Your task to perform on an android device: View the shopping cart on bestbuy.com. Search for logitech g pro on bestbuy.com, select the first entry, add it to the cart, then select checkout. Image 0: 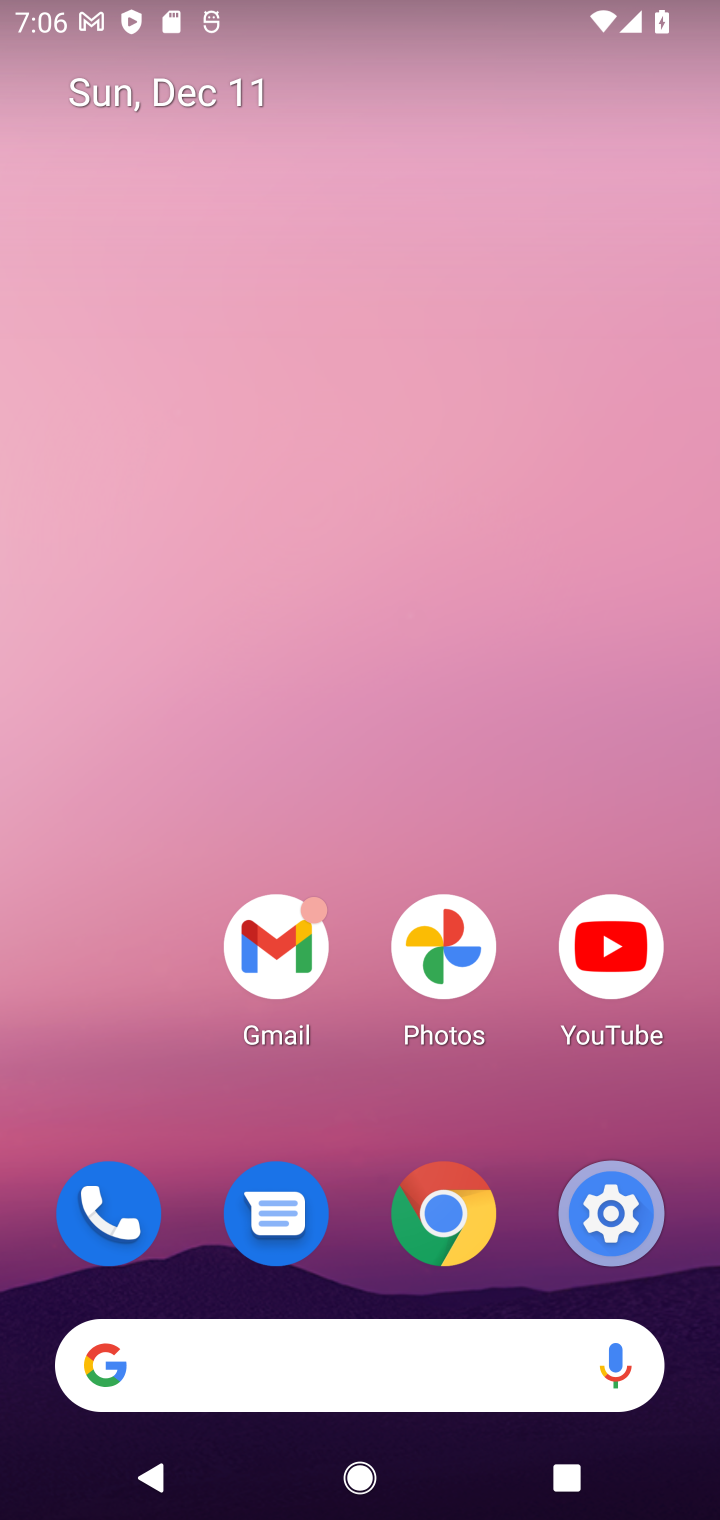
Step 0: click (362, 1363)
Your task to perform on an android device: View the shopping cart on bestbuy.com. Search for logitech g pro on bestbuy.com, select the first entry, add it to the cart, then select checkout. Image 1: 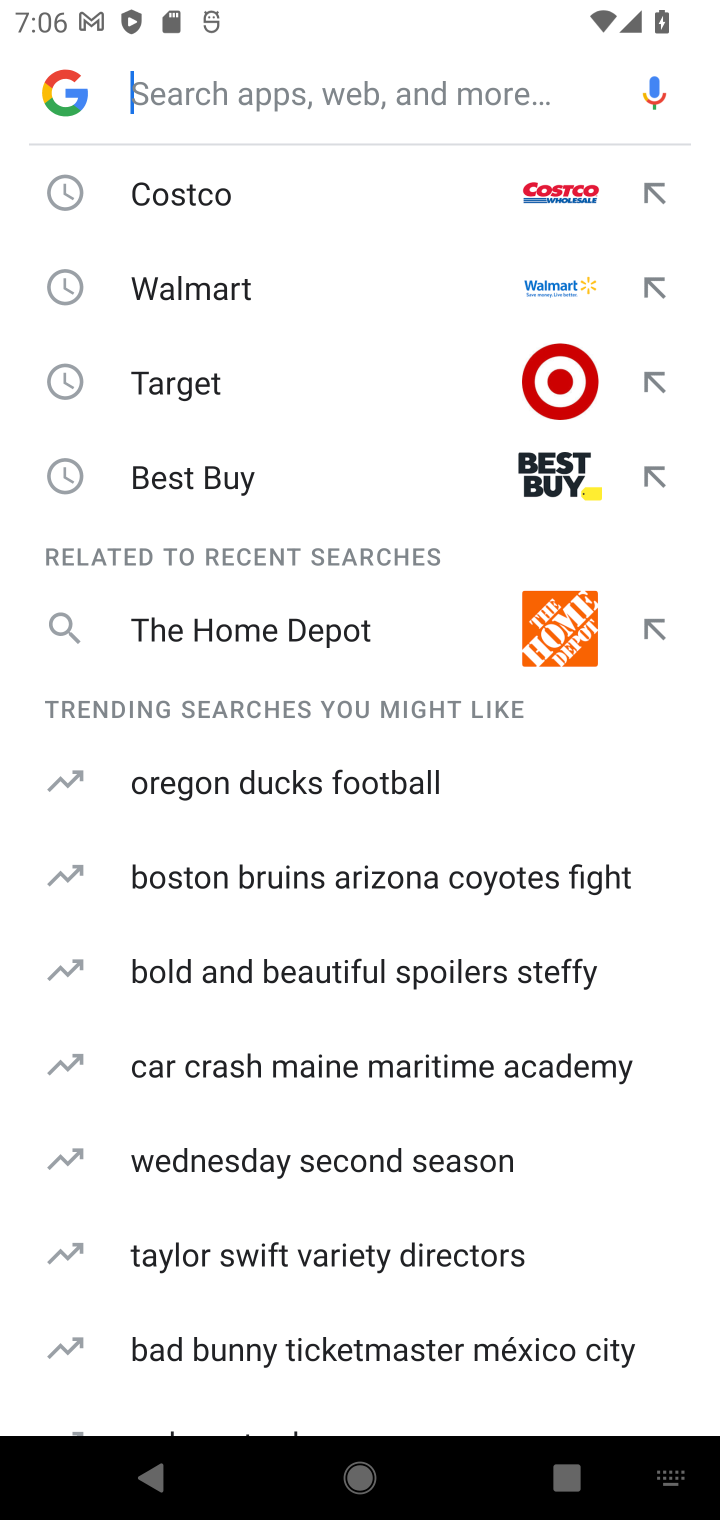
Step 1: click (260, 501)
Your task to perform on an android device: View the shopping cart on bestbuy.com. Search for logitech g pro on bestbuy.com, select the first entry, add it to the cart, then select checkout. Image 2: 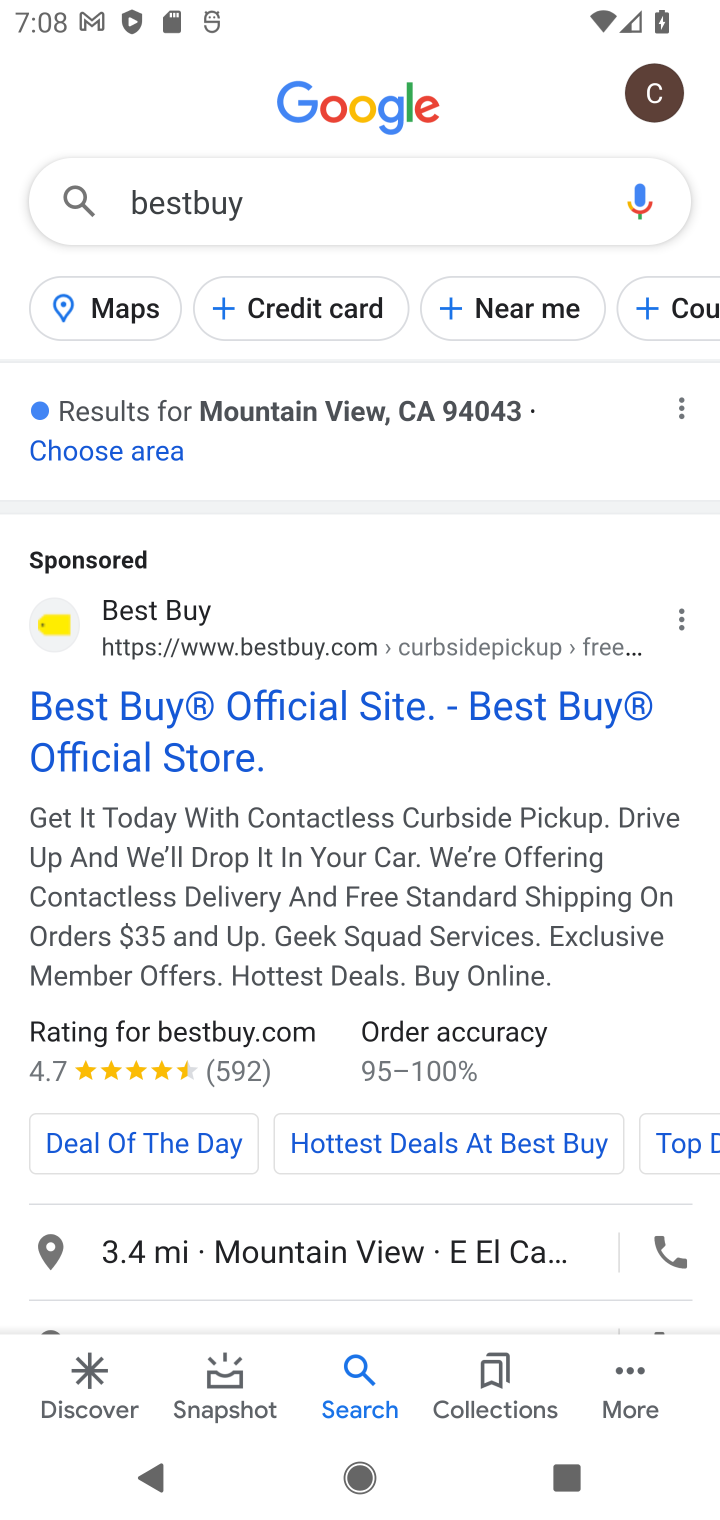
Step 2: click (286, 688)
Your task to perform on an android device: View the shopping cart on bestbuy.com. Search for logitech g pro on bestbuy.com, select the first entry, add it to the cart, then select checkout. Image 3: 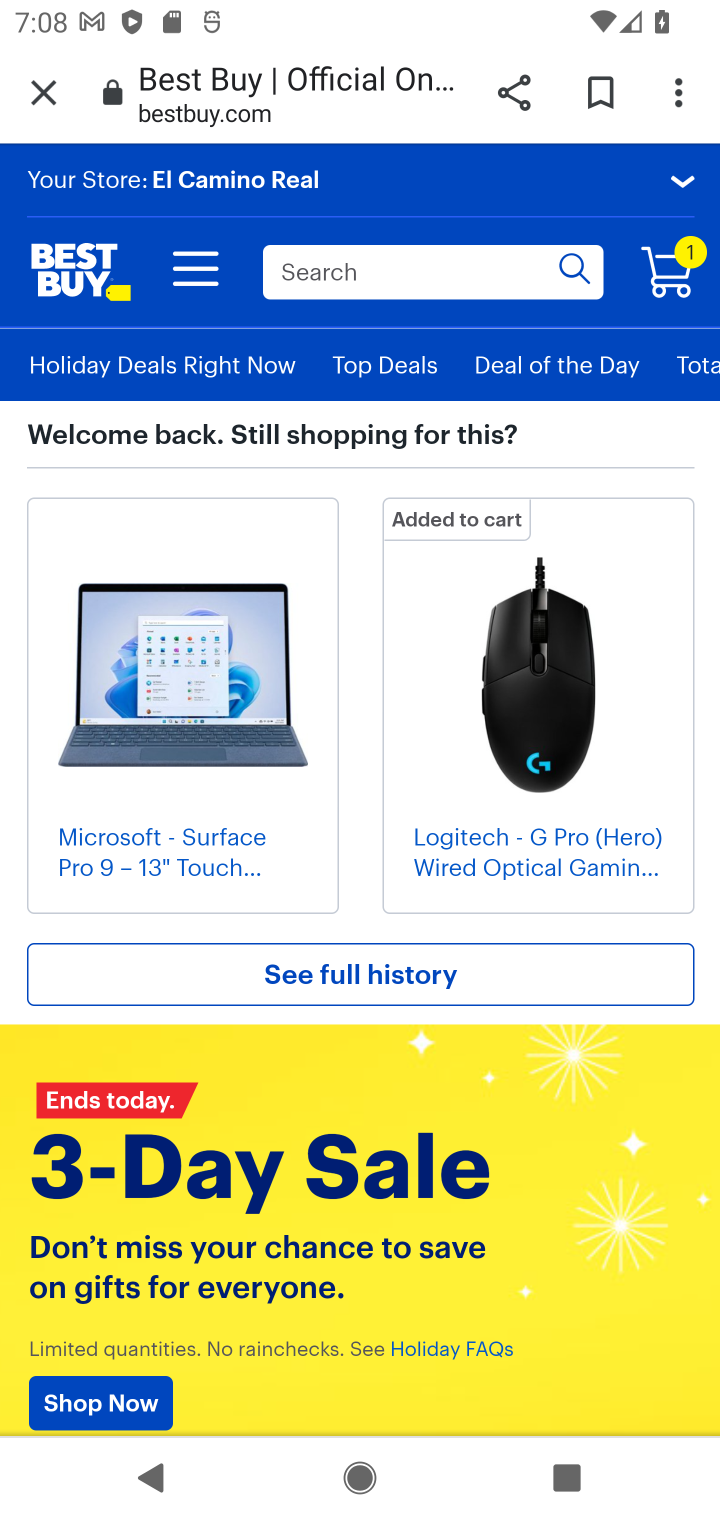
Step 3: click (446, 243)
Your task to perform on an android device: View the shopping cart on bestbuy.com. Search for logitech g pro on bestbuy.com, select the first entry, add it to the cart, then select checkout. Image 4: 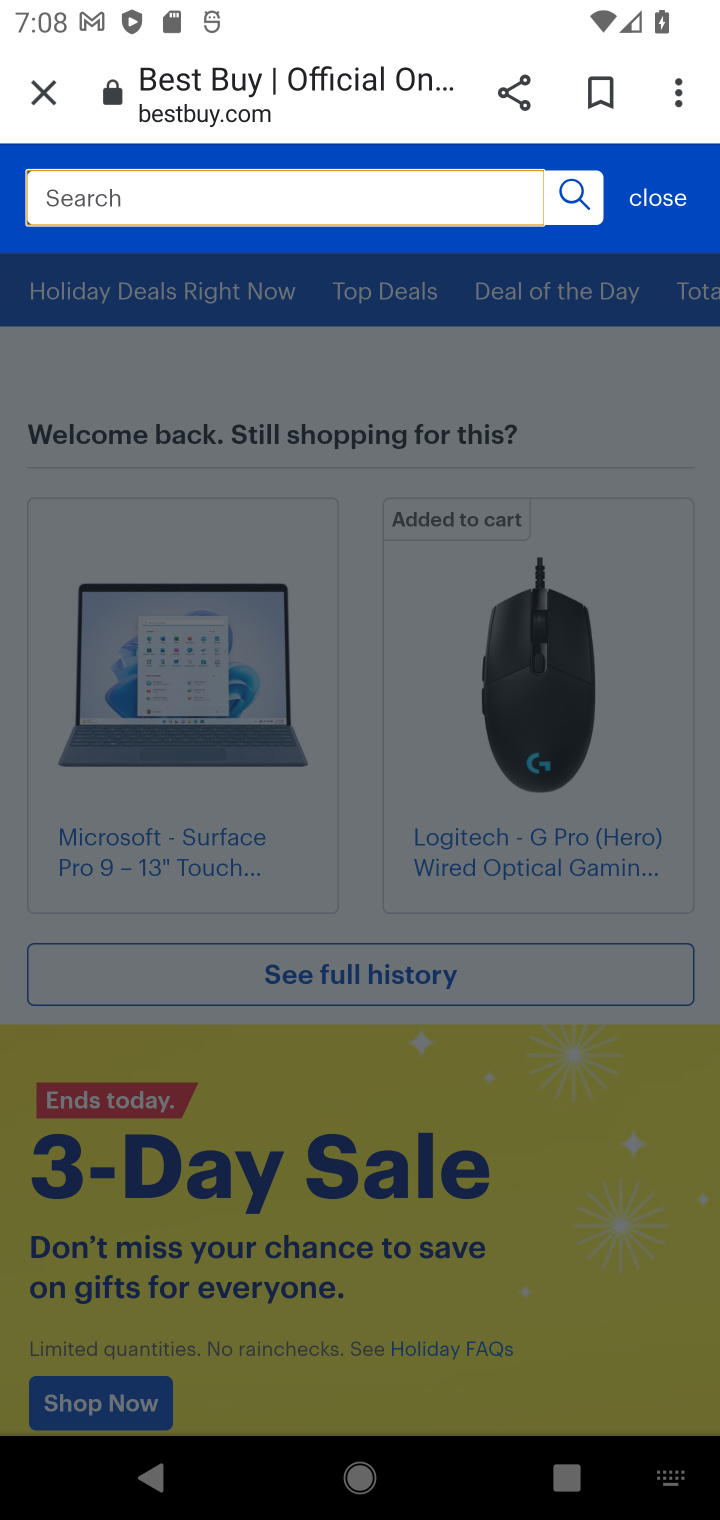
Step 4: type "logitech g pro"
Your task to perform on an android device: View the shopping cart on bestbuy.com. Search for logitech g pro on bestbuy.com, select the first entry, add it to the cart, then select checkout. Image 5: 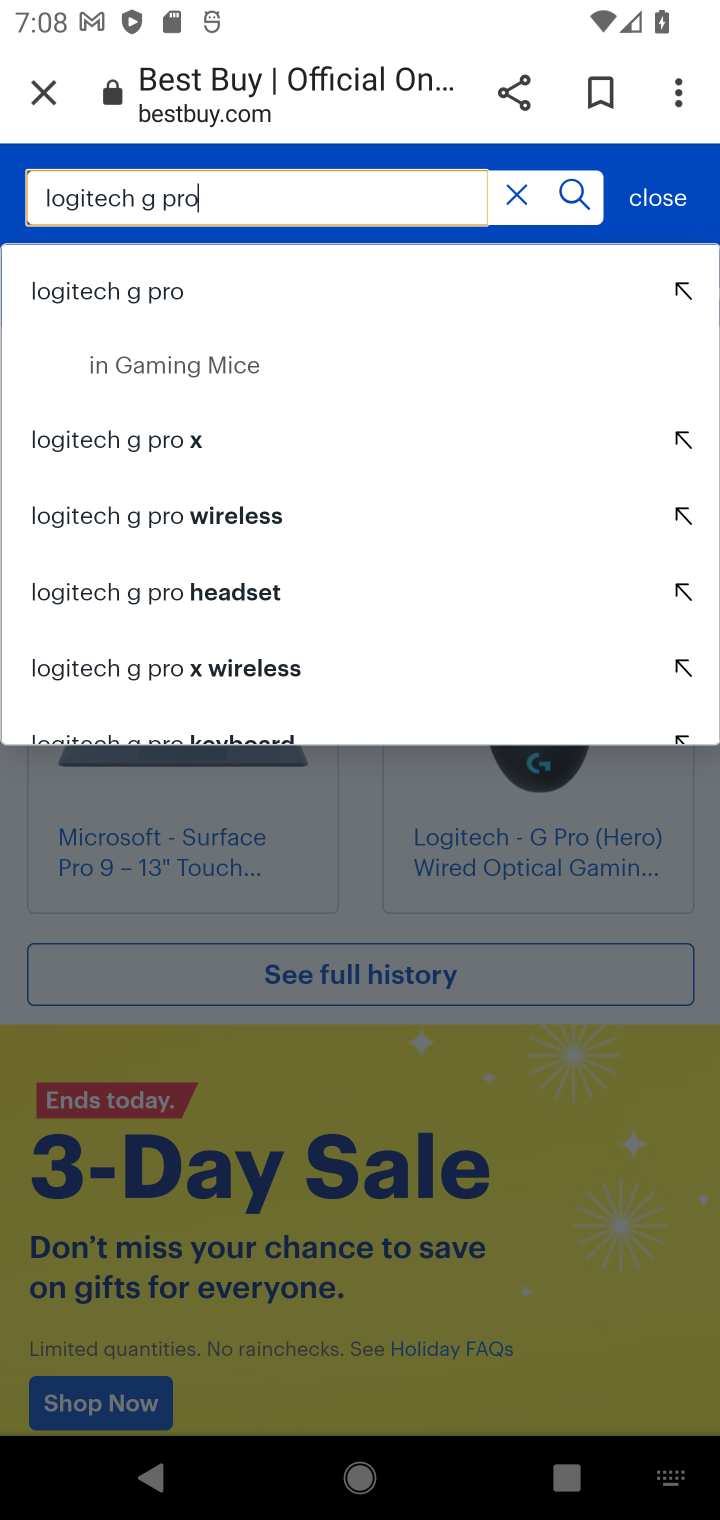
Step 5: click (195, 295)
Your task to perform on an android device: View the shopping cart on bestbuy.com. Search for logitech g pro on bestbuy.com, select the first entry, add it to the cart, then select checkout. Image 6: 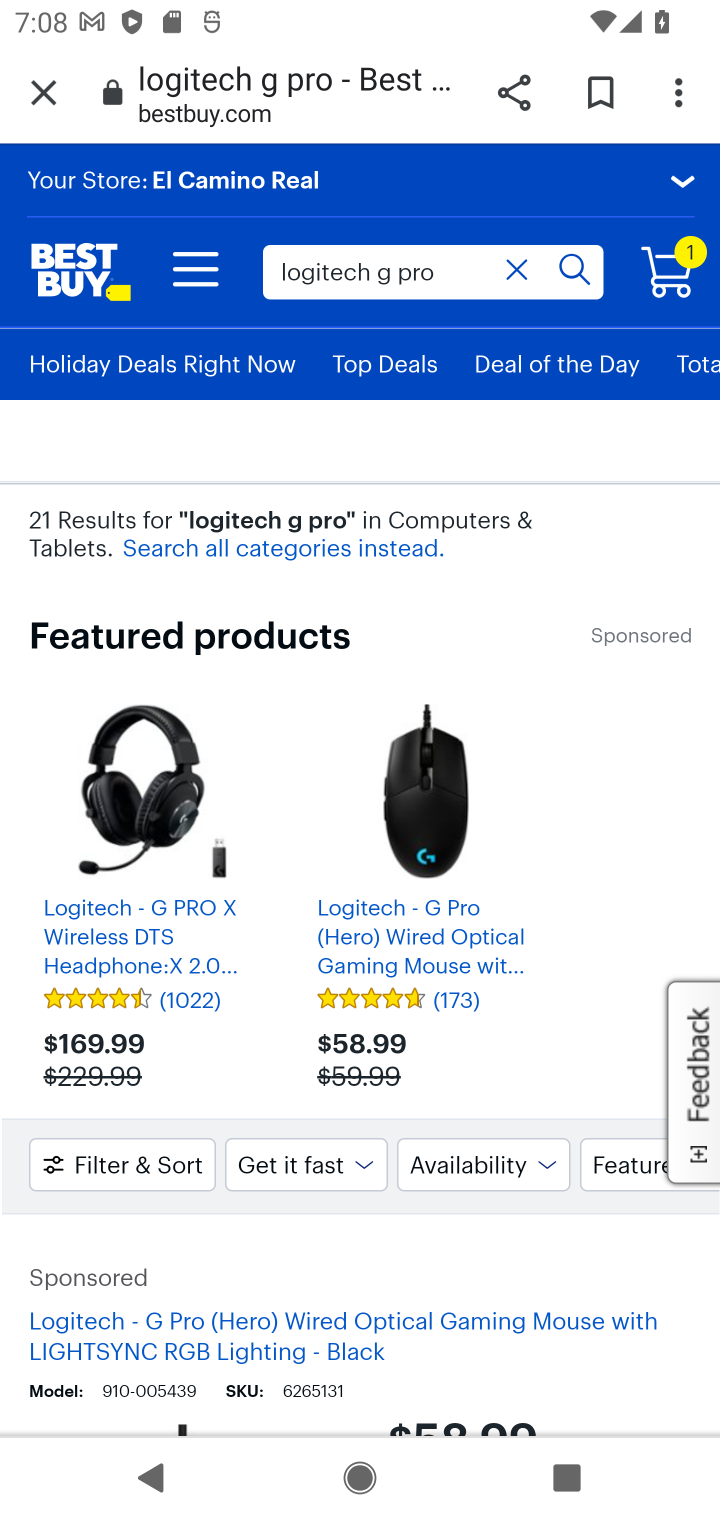
Step 6: click (108, 891)
Your task to perform on an android device: View the shopping cart on bestbuy.com. Search for logitech g pro on bestbuy.com, select the first entry, add it to the cart, then select checkout. Image 7: 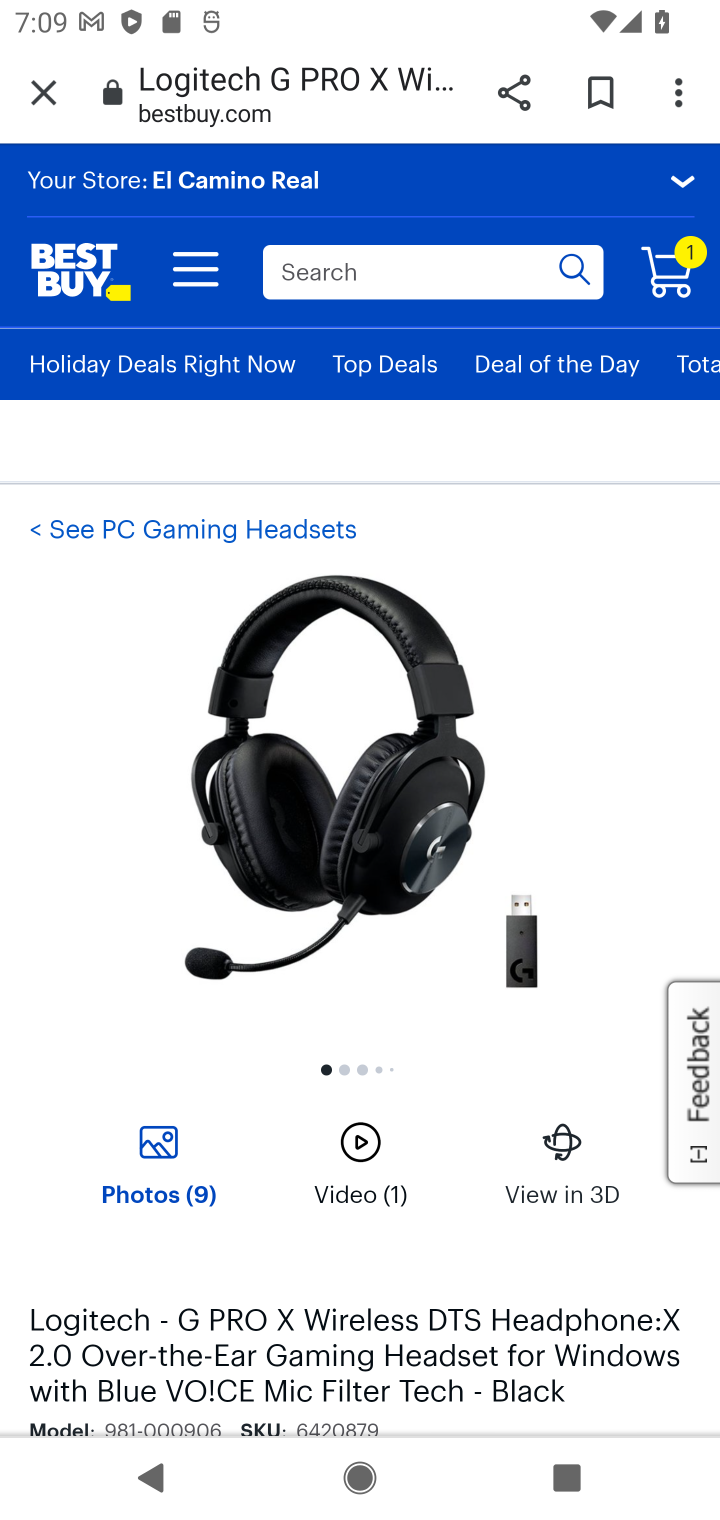
Step 7: drag from (159, 1026) to (164, 783)
Your task to perform on an android device: View the shopping cart on bestbuy.com. Search for logitech g pro on bestbuy.com, select the first entry, add it to the cart, then select checkout. Image 8: 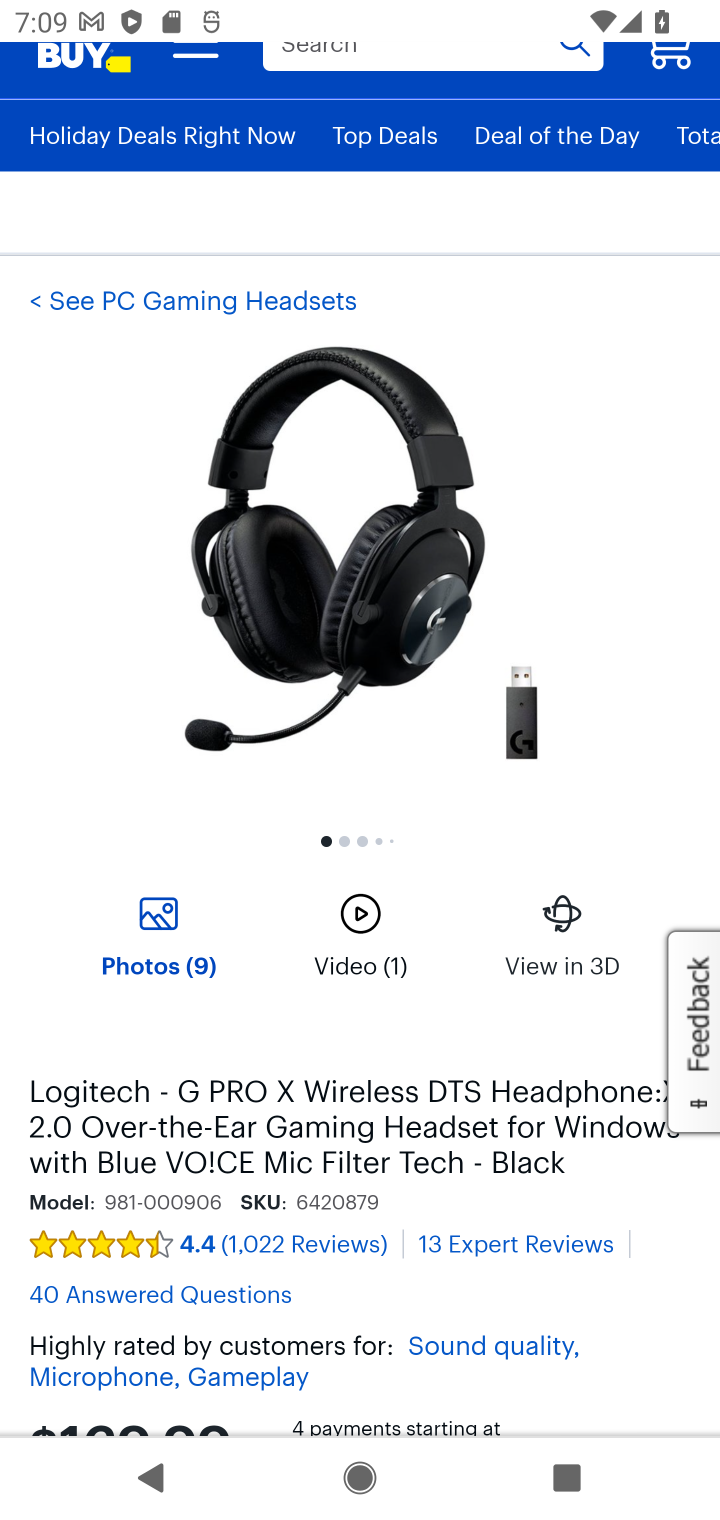
Step 8: drag from (550, 1328) to (512, 1030)
Your task to perform on an android device: View the shopping cart on bestbuy.com. Search for logitech g pro on bestbuy.com, select the first entry, add it to the cart, then select checkout. Image 9: 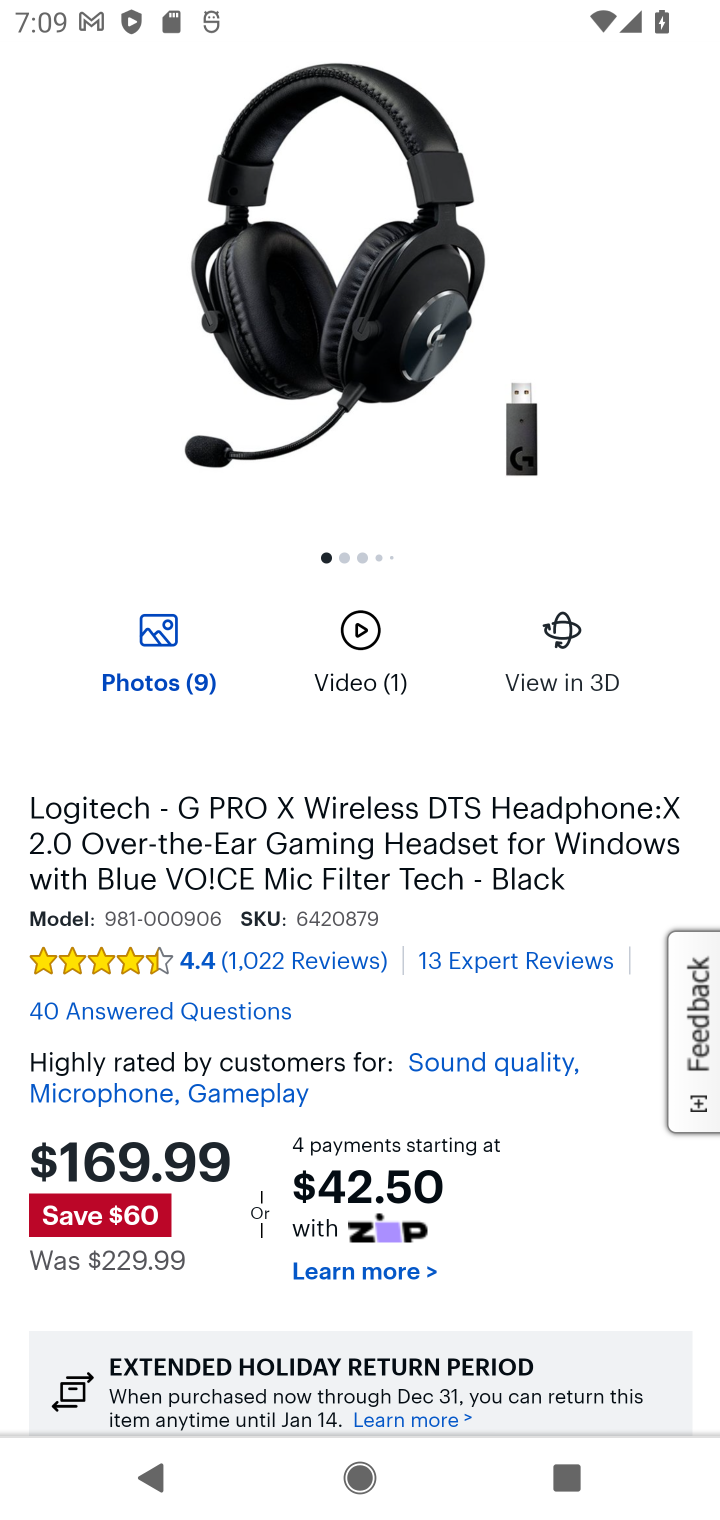
Step 9: drag from (467, 1252) to (453, 602)
Your task to perform on an android device: View the shopping cart on bestbuy.com. Search for logitech g pro on bestbuy.com, select the first entry, add it to the cart, then select checkout. Image 10: 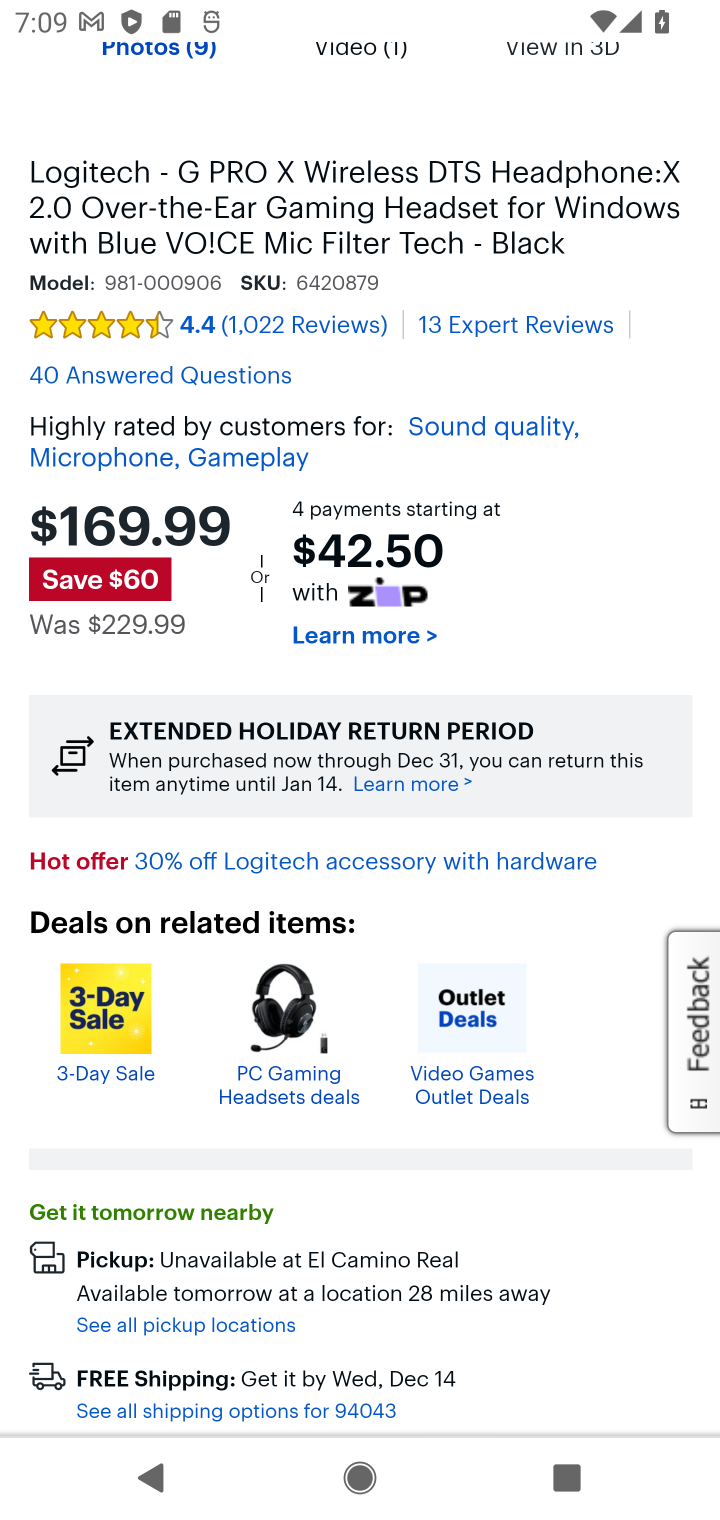
Step 10: drag from (550, 1183) to (429, 332)
Your task to perform on an android device: View the shopping cart on bestbuy.com. Search for logitech g pro on bestbuy.com, select the first entry, add it to the cart, then select checkout. Image 11: 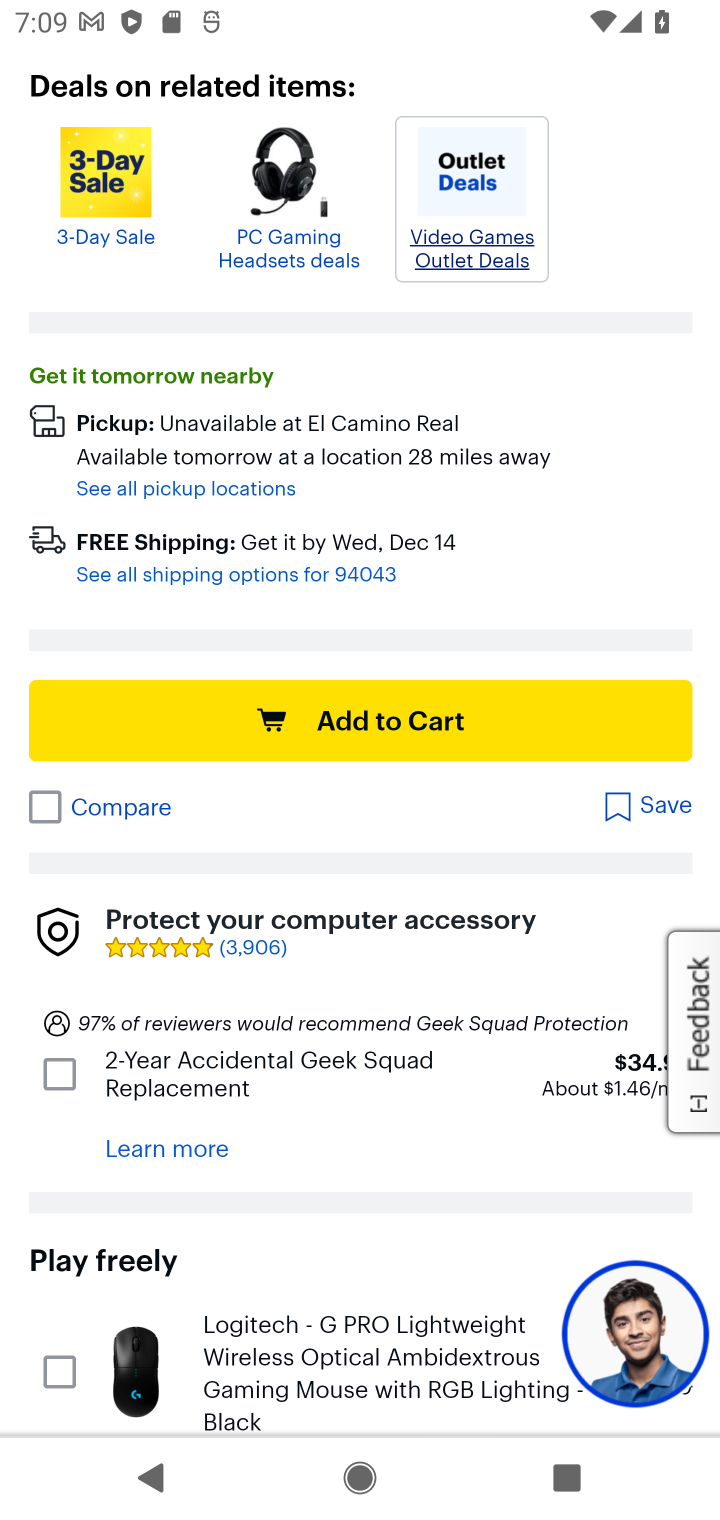
Step 11: click (479, 740)
Your task to perform on an android device: View the shopping cart on bestbuy.com. Search for logitech g pro on bestbuy.com, select the first entry, add it to the cart, then select checkout. Image 12: 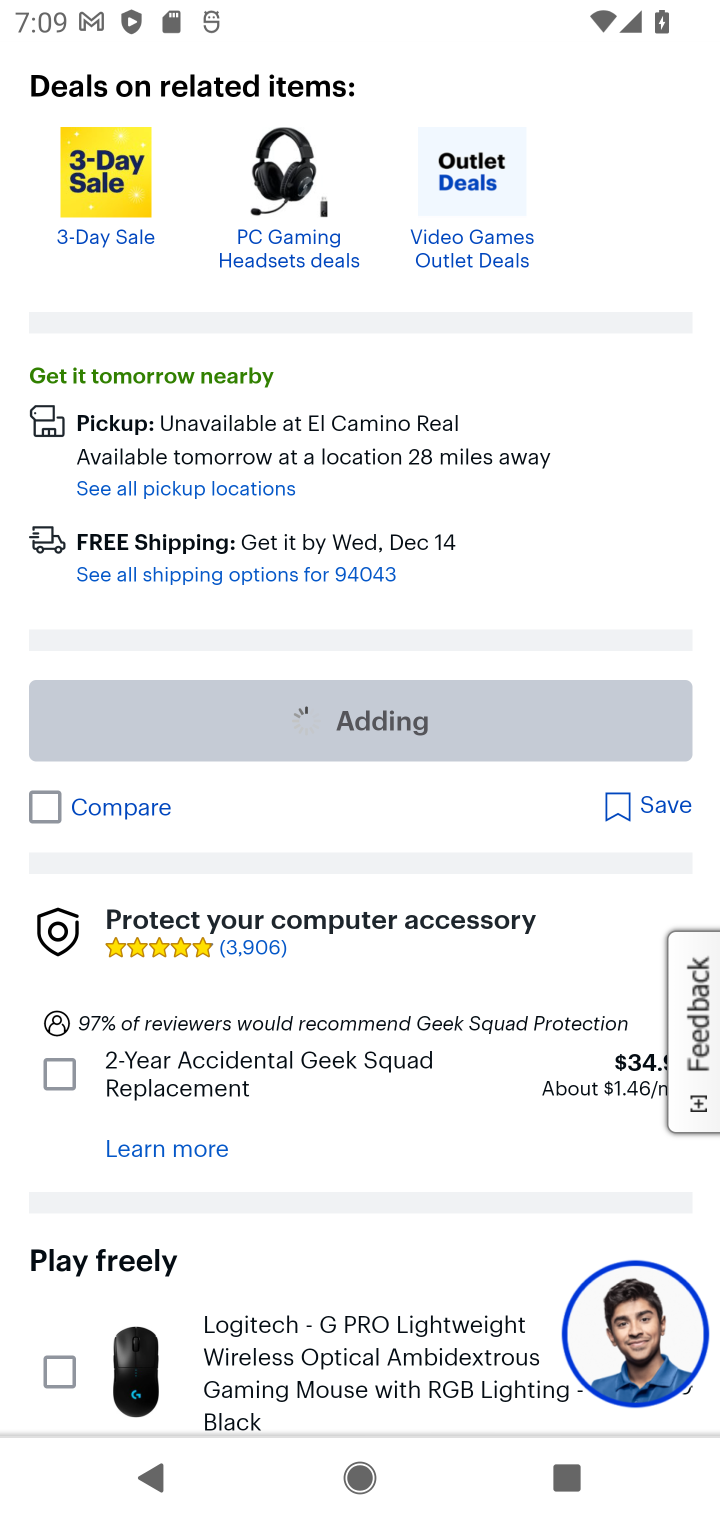
Step 12: task complete